Your task to perform on an android device: turn off location Image 0: 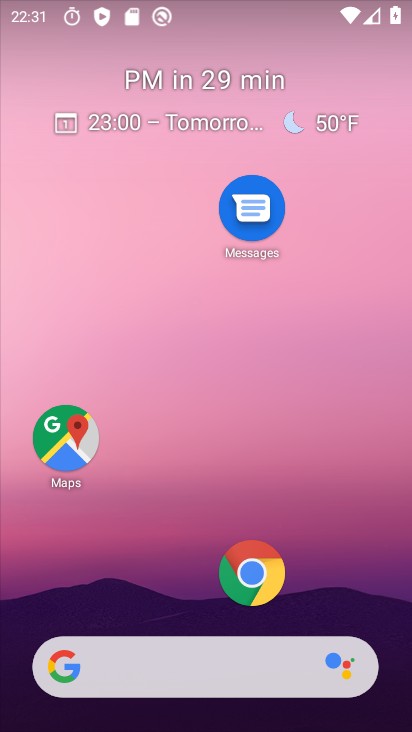
Step 0: drag from (162, 582) to (125, 1)
Your task to perform on an android device: turn off location Image 1: 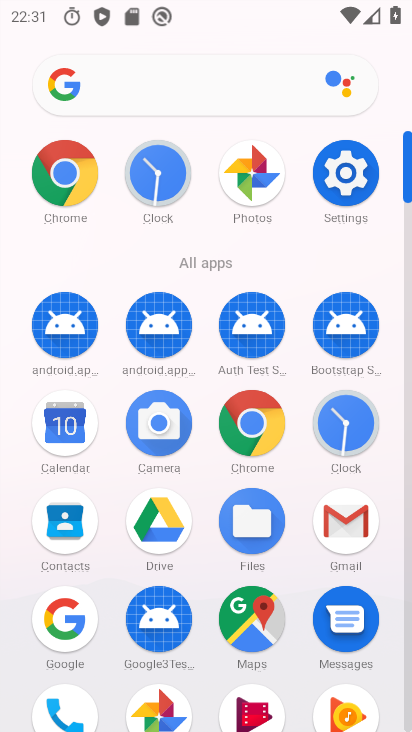
Step 1: click (354, 177)
Your task to perform on an android device: turn off location Image 2: 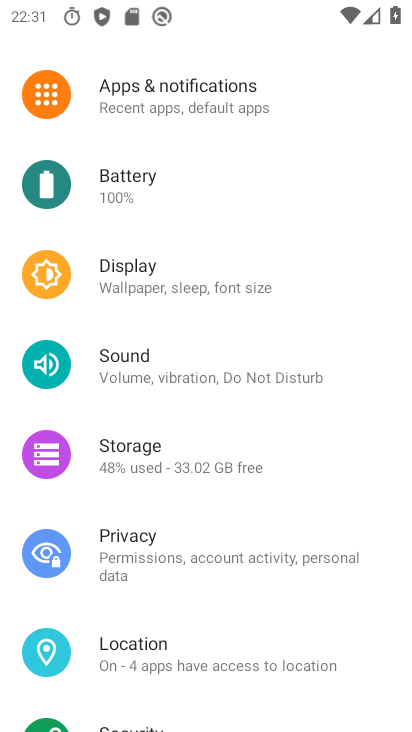
Step 2: click (213, 652)
Your task to perform on an android device: turn off location Image 3: 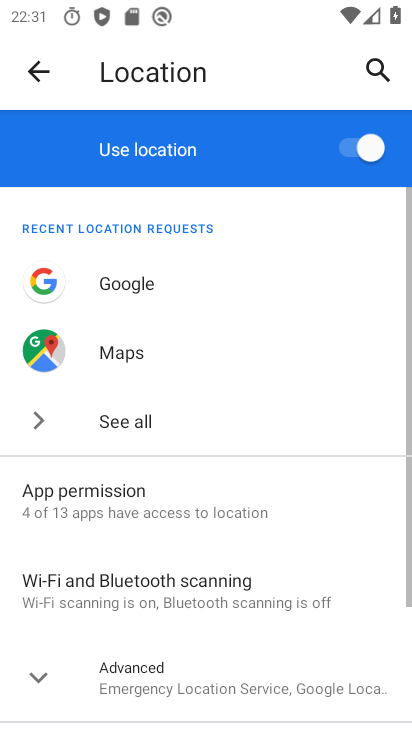
Step 3: click (379, 158)
Your task to perform on an android device: turn off location Image 4: 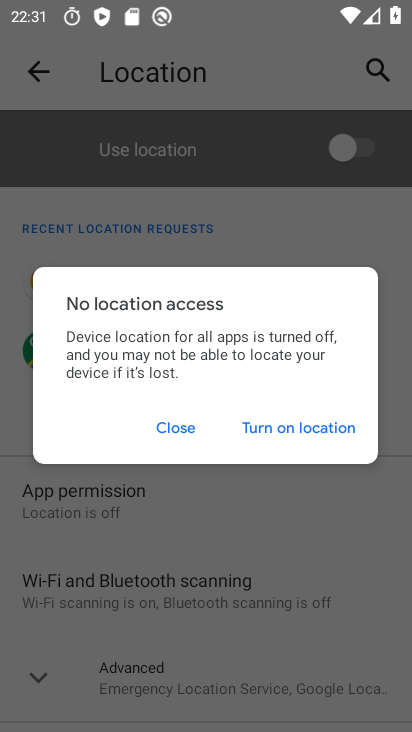
Step 4: click (185, 423)
Your task to perform on an android device: turn off location Image 5: 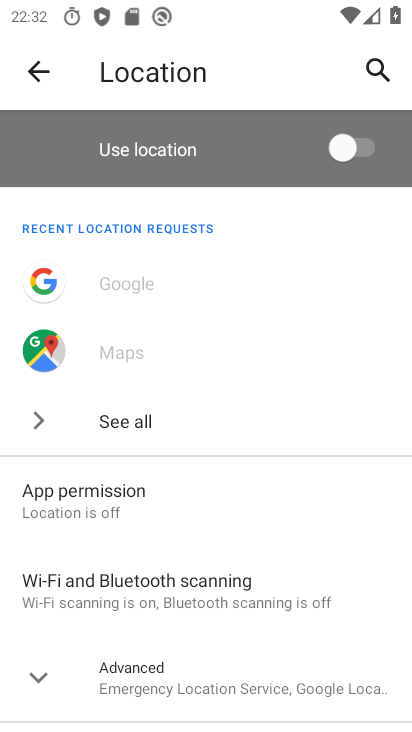
Step 5: task complete